Your task to perform on an android device: Search for the Nintendo Switch. Image 0: 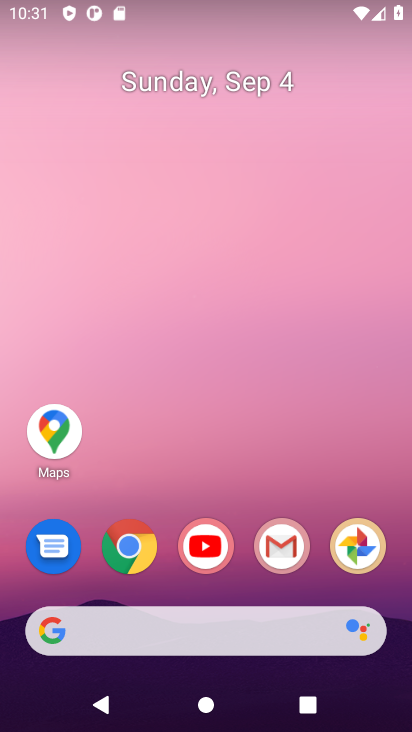
Step 0: click (138, 545)
Your task to perform on an android device: Search for the Nintendo Switch. Image 1: 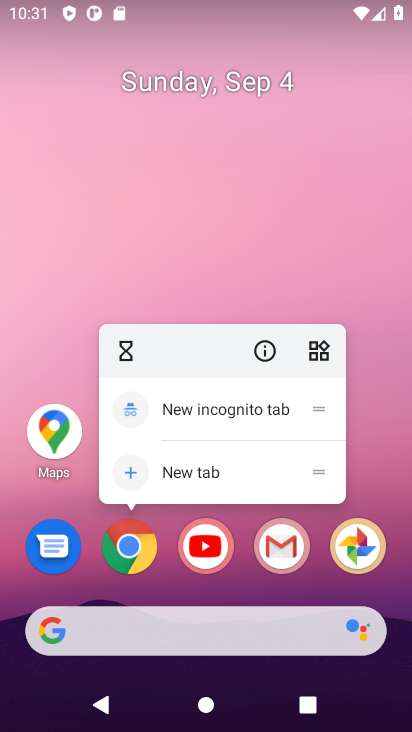
Step 1: click (127, 555)
Your task to perform on an android device: Search for the Nintendo Switch. Image 2: 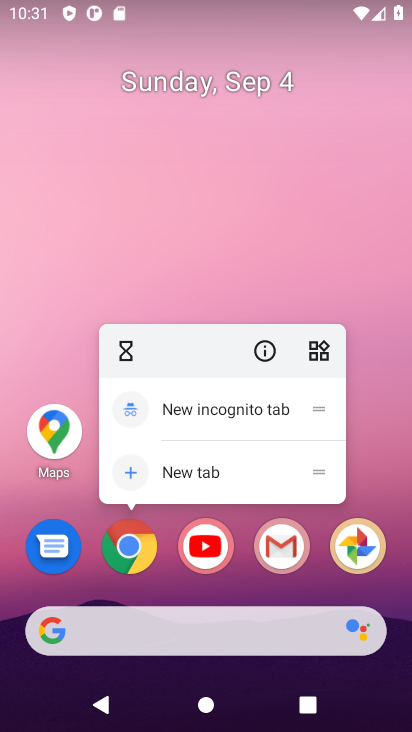
Step 2: click (127, 547)
Your task to perform on an android device: Search for the Nintendo Switch. Image 3: 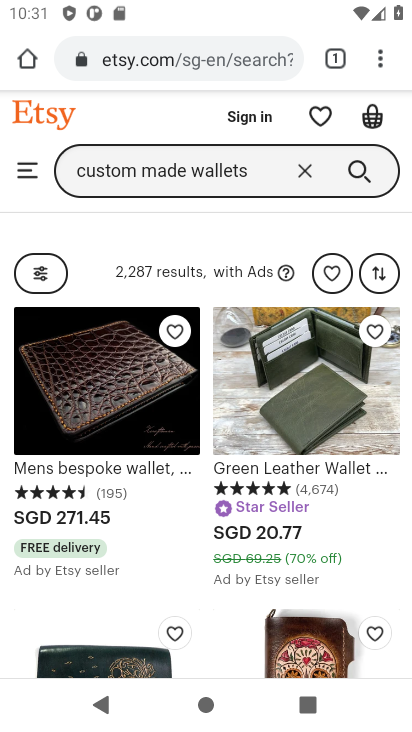
Step 3: click (174, 60)
Your task to perform on an android device: Search for the Nintendo Switch. Image 4: 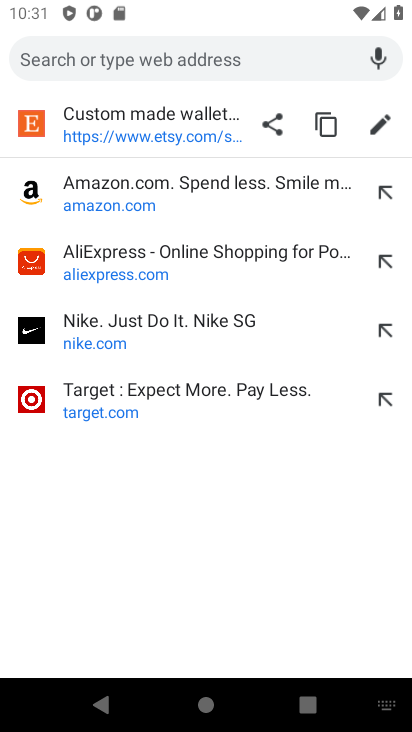
Step 4: type "Nintendo Switch"
Your task to perform on an android device: Search for the Nintendo Switch. Image 5: 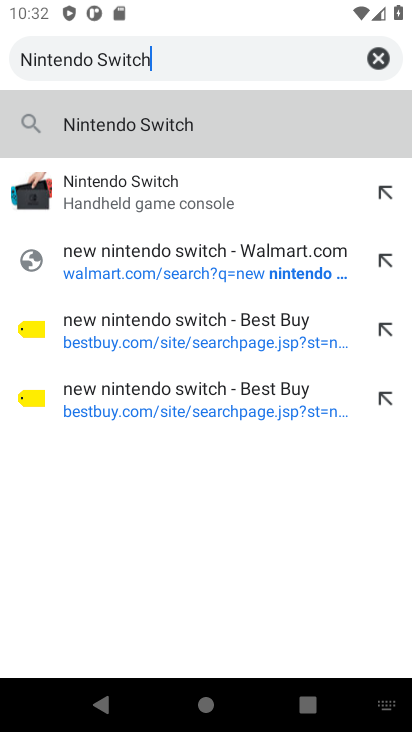
Step 5: click (87, 205)
Your task to perform on an android device: Search for the Nintendo Switch. Image 6: 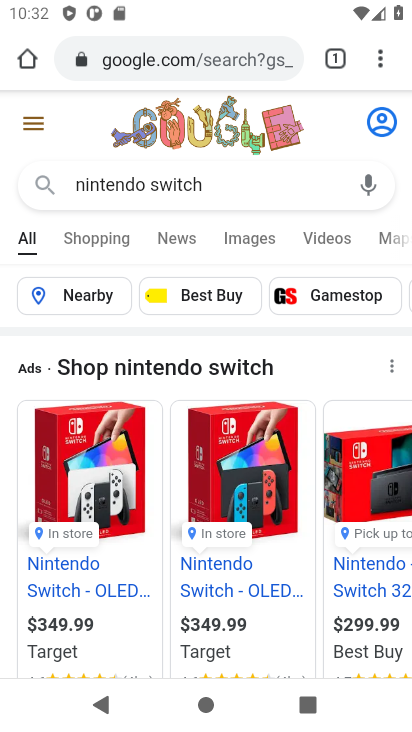
Step 6: click (120, 567)
Your task to perform on an android device: Search for the Nintendo Switch. Image 7: 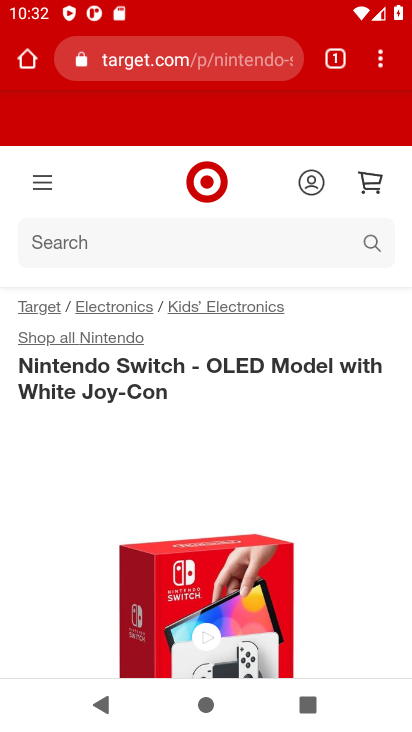
Step 7: task complete